Your task to perform on an android device: open sync settings in chrome Image 0: 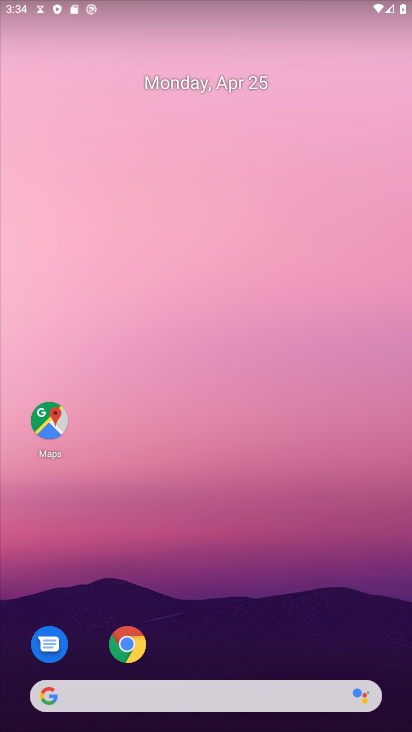
Step 0: drag from (232, 664) to (264, 81)
Your task to perform on an android device: open sync settings in chrome Image 1: 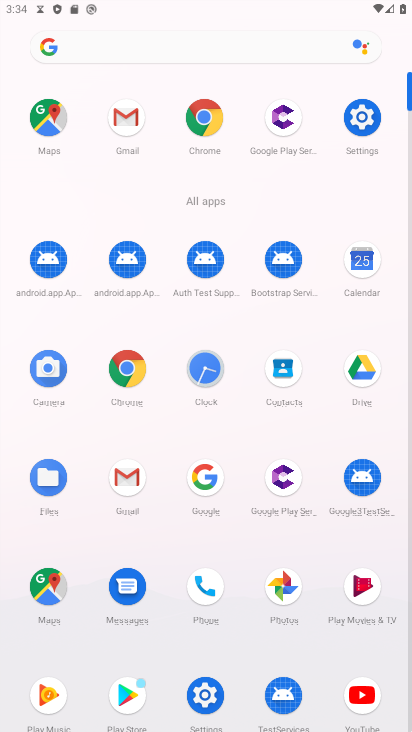
Step 1: click (125, 365)
Your task to perform on an android device: open sync settings in chrome Image 2: 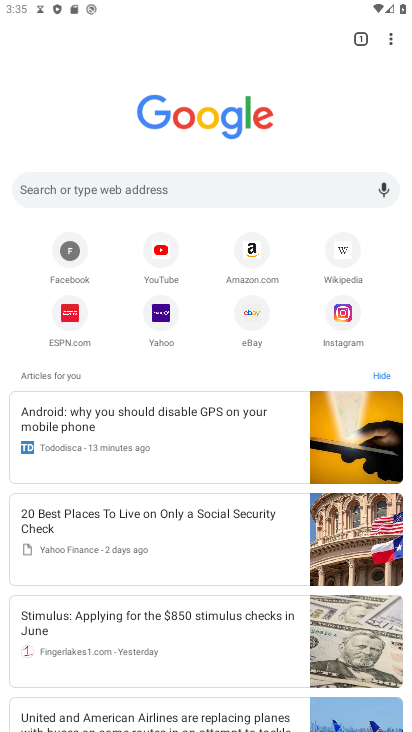
Step 2: click (390, 35)
Your task to perform on an android device: open sync settings in chrome Image 3: 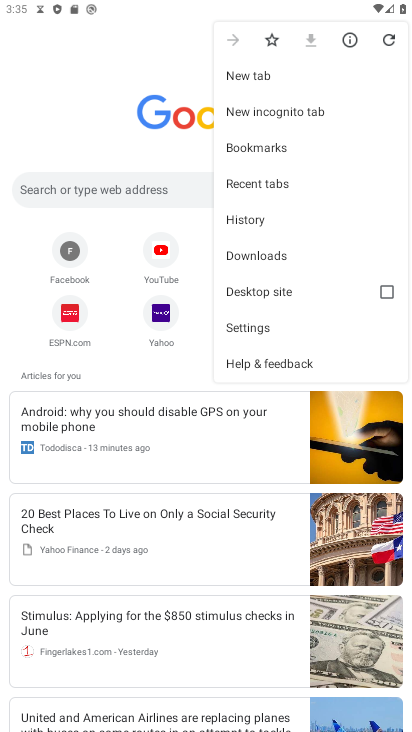
Step 3: click (281, 324)
Your task to perform on an android device: open sync settings in chrome Image 4: 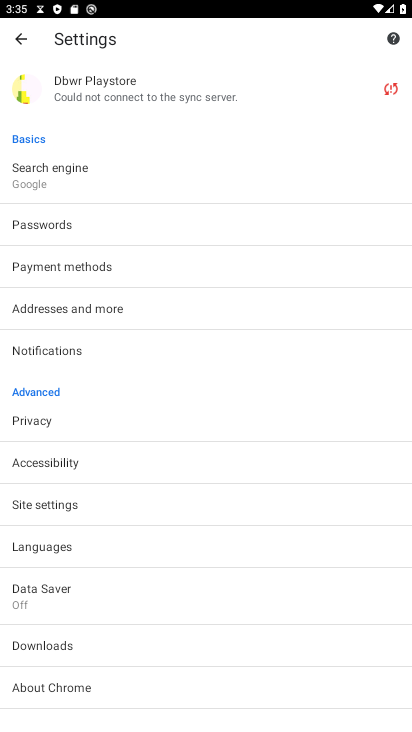
Step 4: click (94, 499)
Your task to perform on an android device: open sync settings in chrome Image 5: 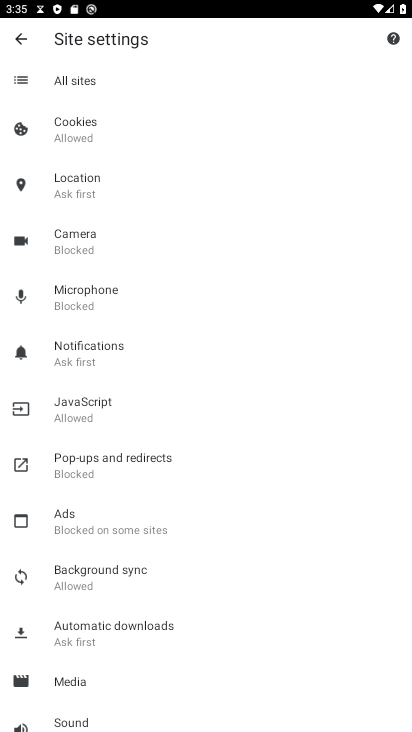
Step 5: press back button
Your task to perform on an android device: open sync settings in chrome Image 6: 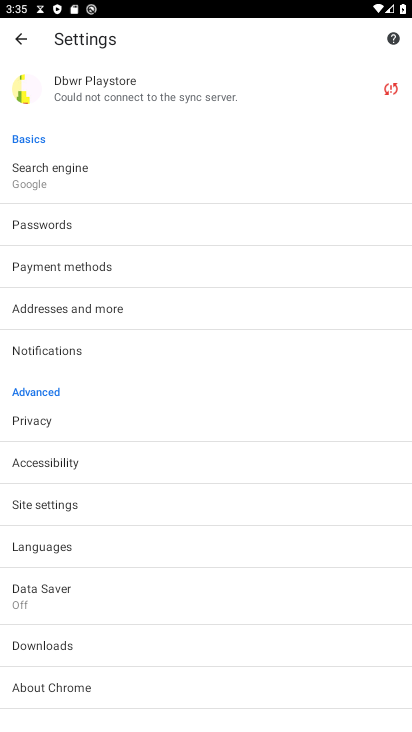
Step 6: click (174, 81)
Your task to perform on an android device: open sync settings in chrome Image 7: 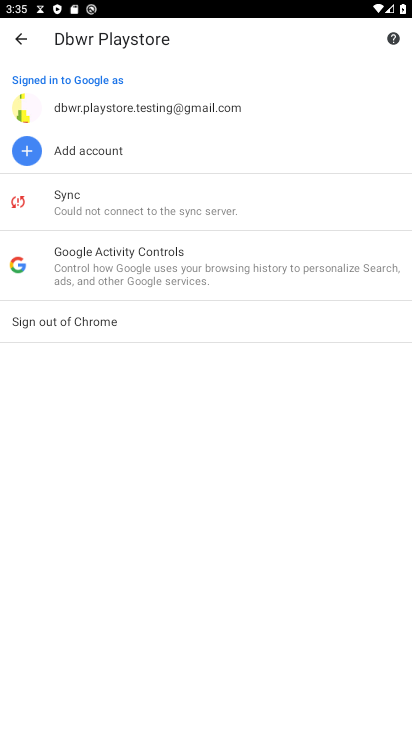
Step 7: task complete